Your task to perform on an android device: Check the news Image 0: 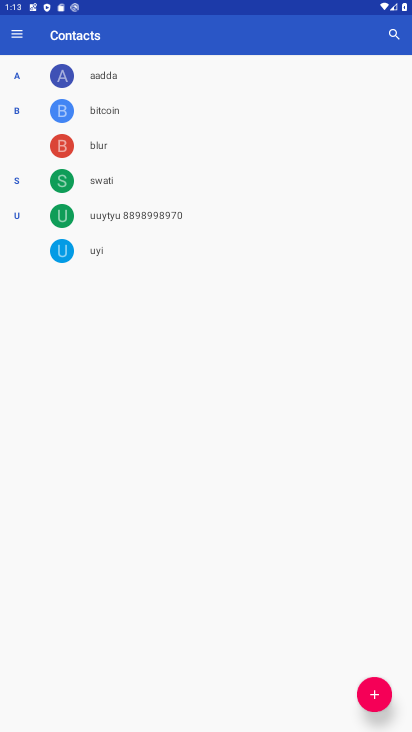
Step 0: press home button
Your task to perform on an android device: Check the news Image 1: 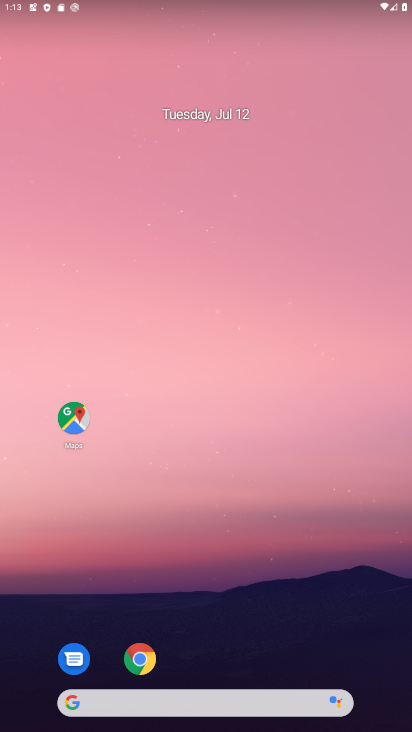
Step 1: drag from (222, 657) to (315, 109)
Your task to perform on an android device: Check the news Image 2: 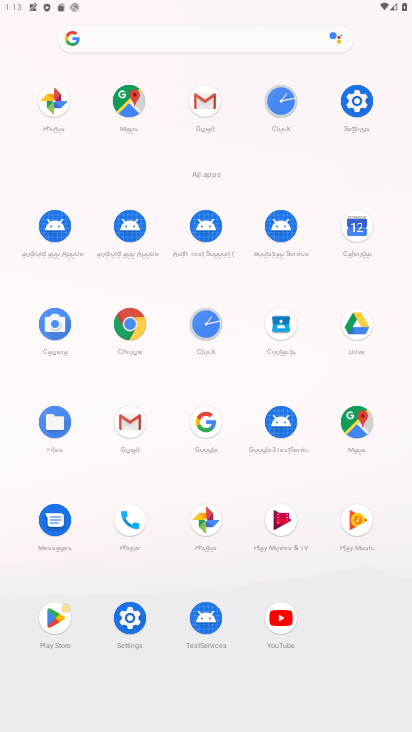
Step 2: click (207, 424)
Your task to perform on an android device: Check the news Image 3: 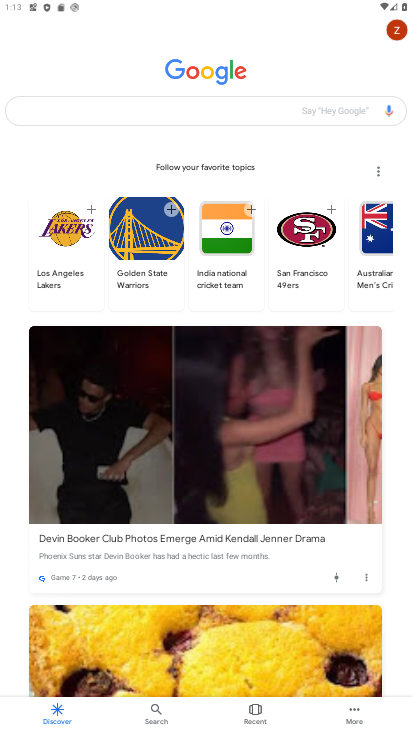
Step 3: task complete